Your task to perform on an android device: Open internet settings Image 0: 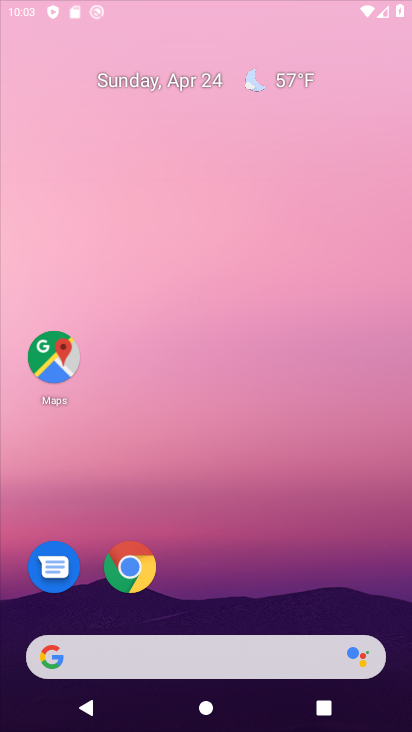
Step 0: click (362, 98)
Your task to perform on an android device: Open internet settings Image 1: 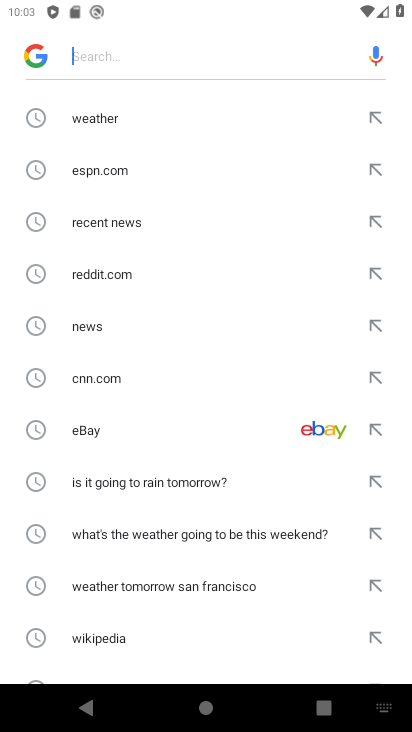
Step 1: press back button
Your task to perform on an android device: Open internet settings Image 2: 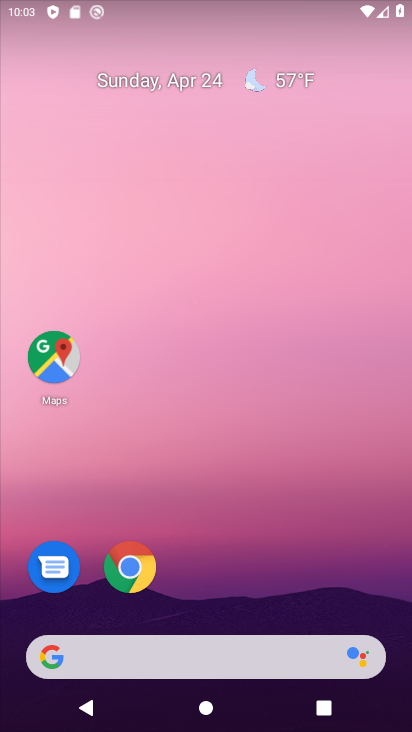
Step 2: drag from (389, 604) to (338, 24)
Your task to perform on an android device: Open internet settings Image 3: 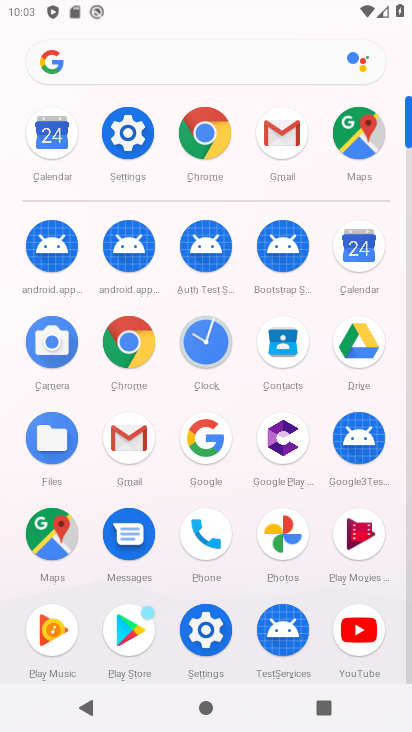
Step 3: click (121, 136)
Your task to perform on an android device: Open internet settings Image 4: 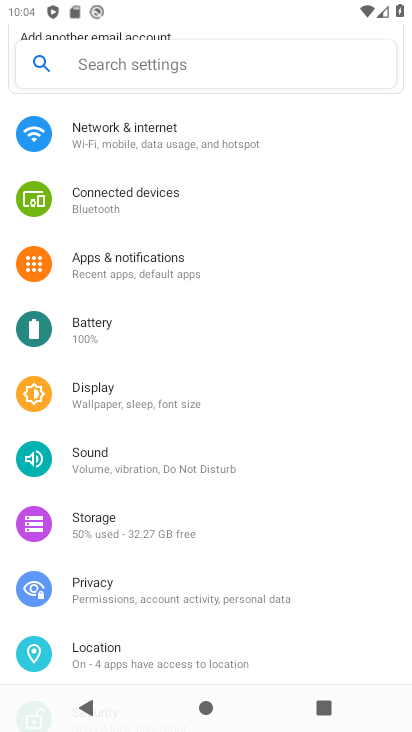
Step 4: click (123, 138)
Your task to perform on an android device: Open internet settings Image 5: 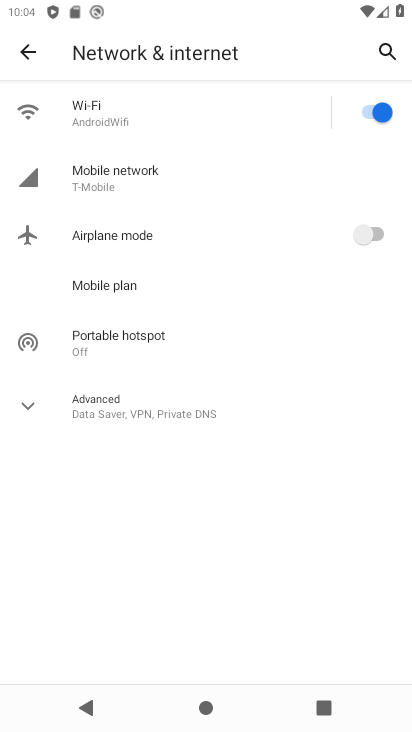
Step 5: task complete